Your task to perform on an android device: delete location history Image 0: 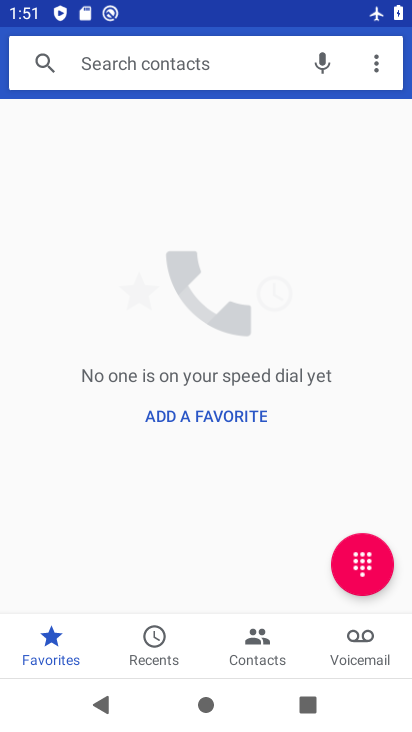
Step 0: press home button
Your task to perform on an android device: delete location history Image 1: 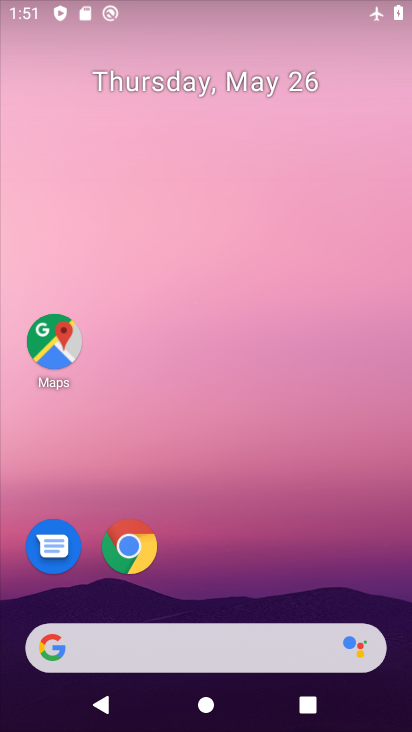
Step 1: drag from (211, 567) to (277, 77)
Your task to perform on an android device: delete location history Image 2: 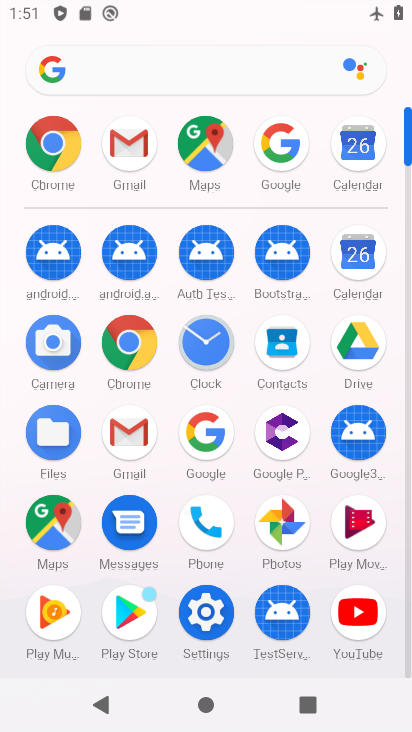
Step 2: click (210, 609)
Your task to perform on an android device: delete location history Image 3: 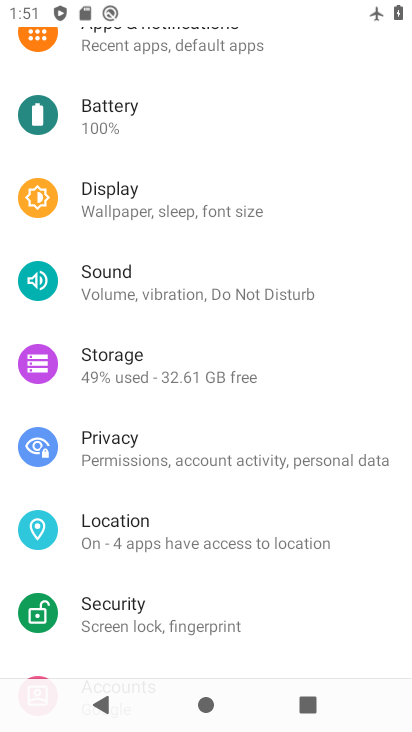
Step 3: click (103, 526)
Your task to perform on an android device: delete location history Image 4: 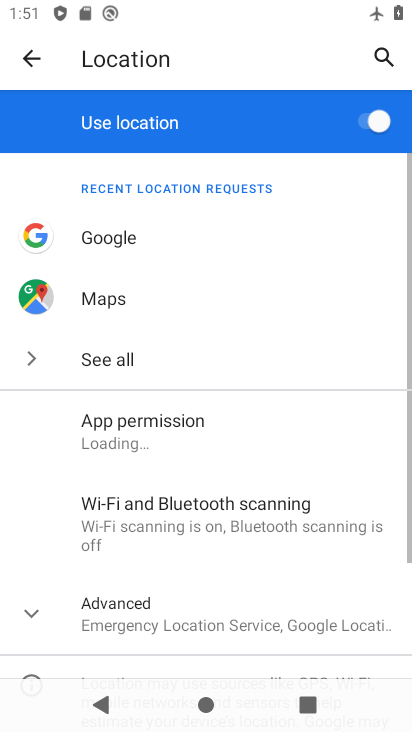
Step 4: click (167, 608)
Your task to perform on an android device: delete location history Image 5: 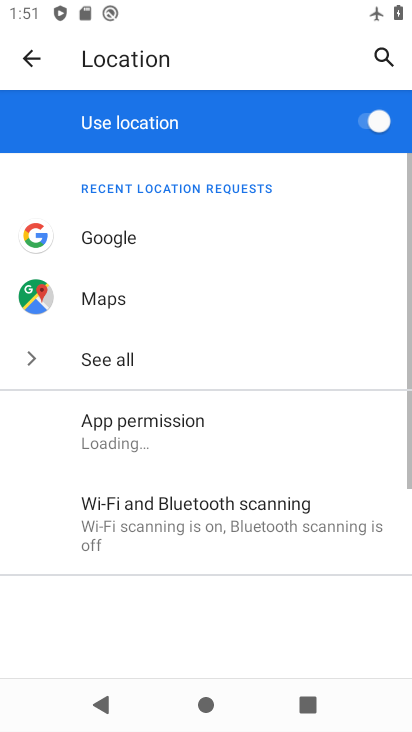
Step 5: drag from (285, 549) to (294, 190)
Your task to perform on an android device: delete location history Image 6: 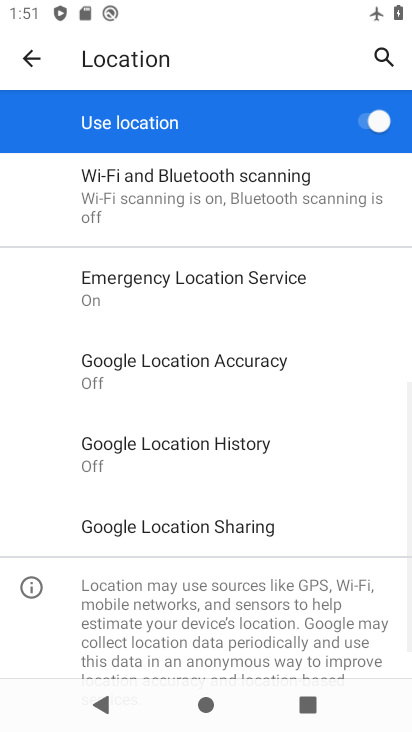
Step 6: click (205, 455)
Your task to perform on an android device: delete location history Image 7: 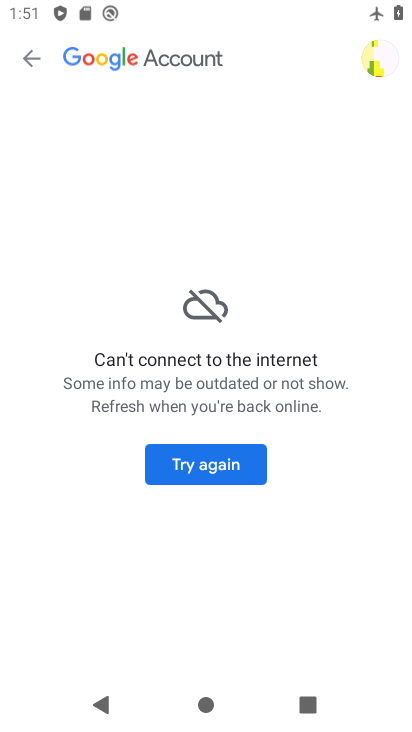
Step 7: task complete